Your task to perform on an android device: Open battery settings Image 0: 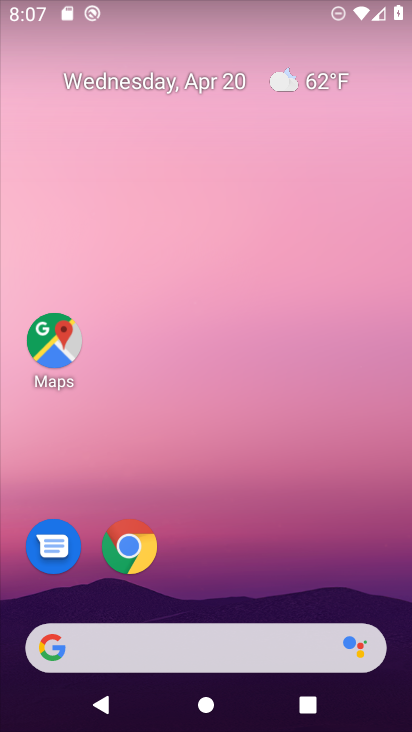
Step 0: drag from (344, 577) to (373, 80)
Your task to perform on an android device: Open battery settings Image 1: 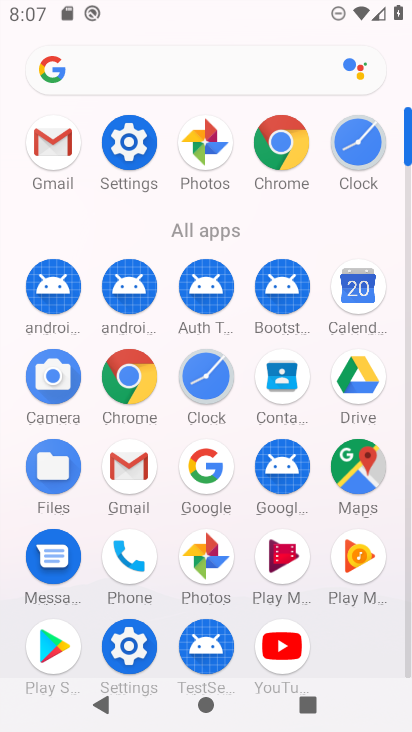
Step 1: click (133, 138)
Your task to perform on an android device: Open battery settings Image 2: 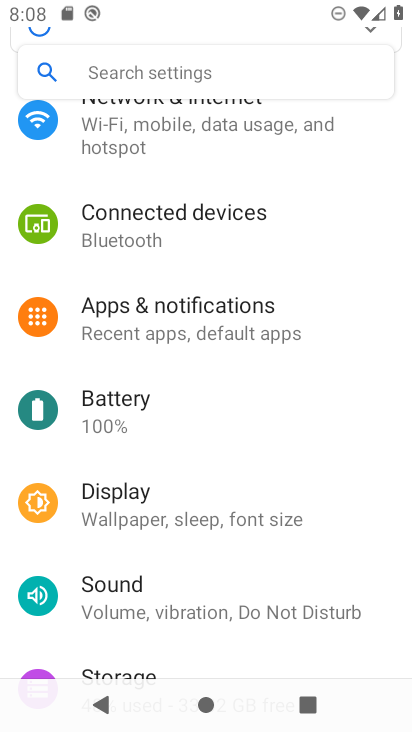
Step 2: click (134, 417)
Your task to perform on an android device: Open battery settings Image 3: 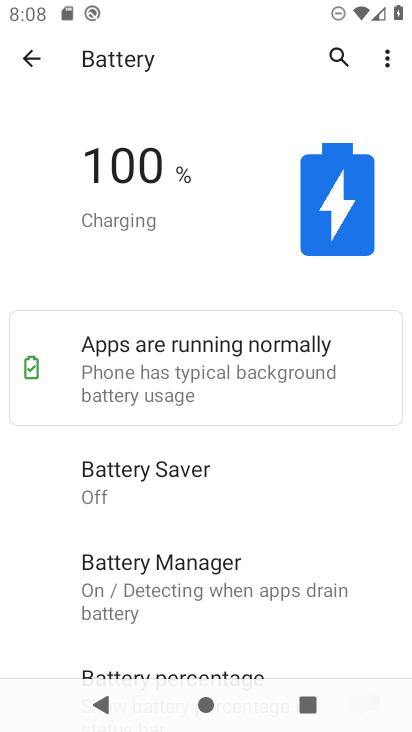
Step 3: task complete